Your task to perform on an android device: star an email in the gmail app Image 0: 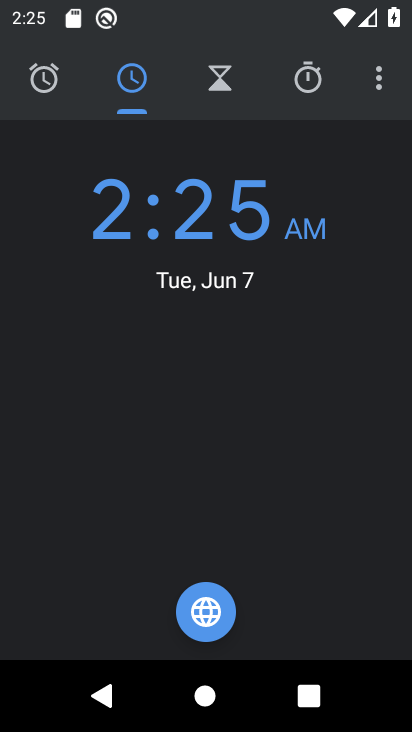
Step 0: press home button
Your task to perform on an android device: star an email in the gmail app Image 1: 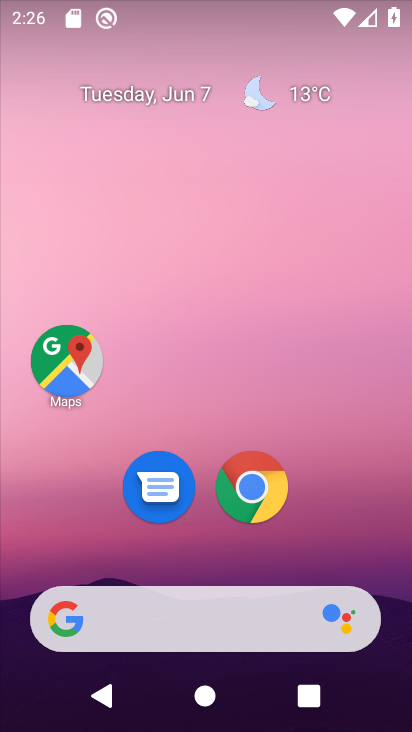
Step 1: drag from (390, 569) to (268, 141)
Your task to perform on an android device: star an email in the gmail app Image 2: 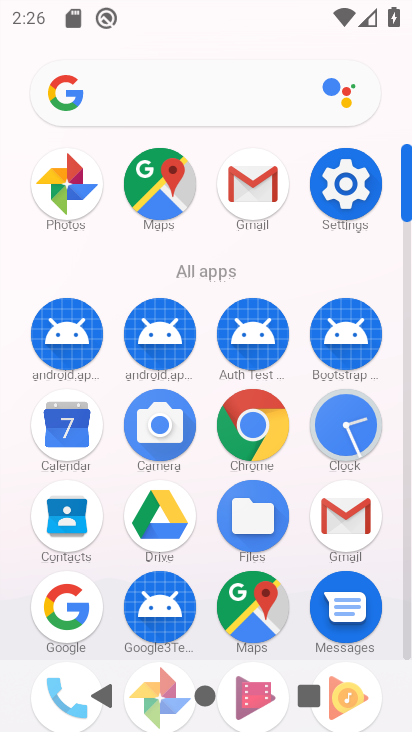
Step 2: click (268, 189)
Your task to perform on an android device: star an email in the gmail app Image 3: 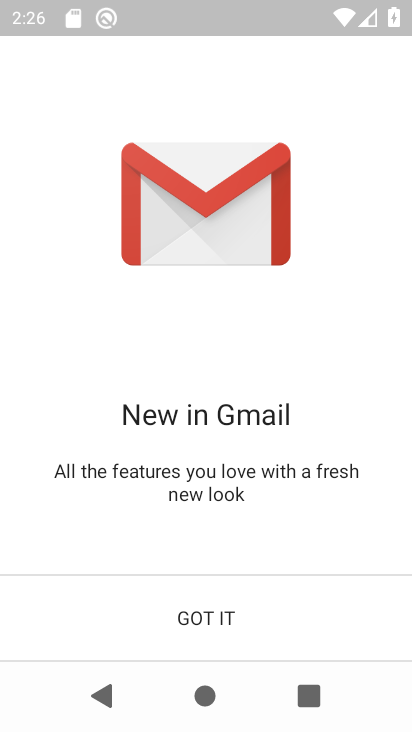
Step 3: click (189, 610)
Your task to perform on an android device: star an email in the gmail app Image 4: 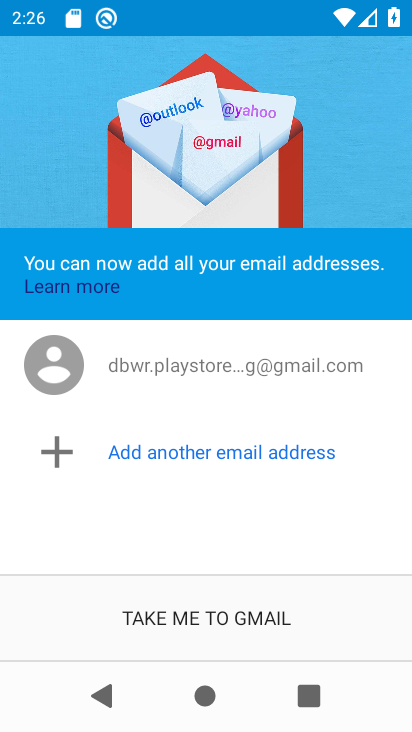
Step 4: click (189, 610)
Your task to perform on an android device: star an email in the gmail app Image 5: 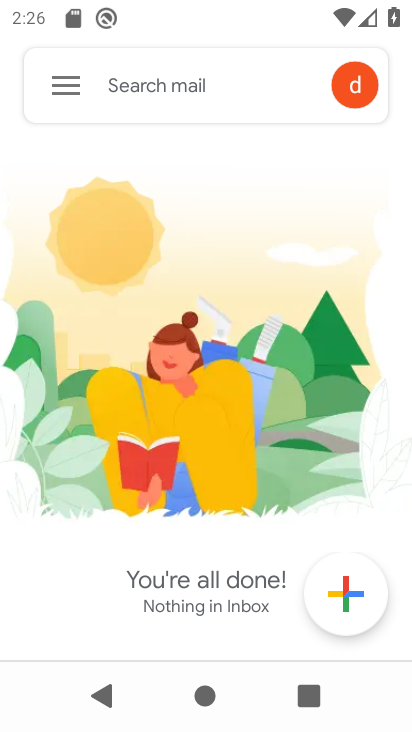
Step 5: task complete